Your task to perform on an android device: Open sound settings Image 0: 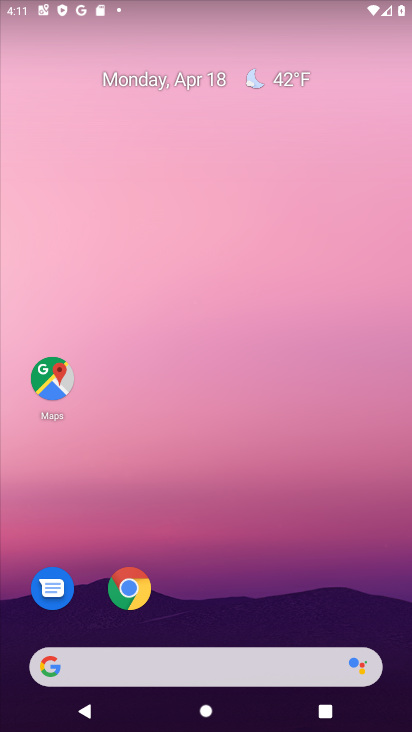
Step 0: drag from (242, 526) to (292, 73)
Your task to perform on an android device: Open sound settings Image 1: 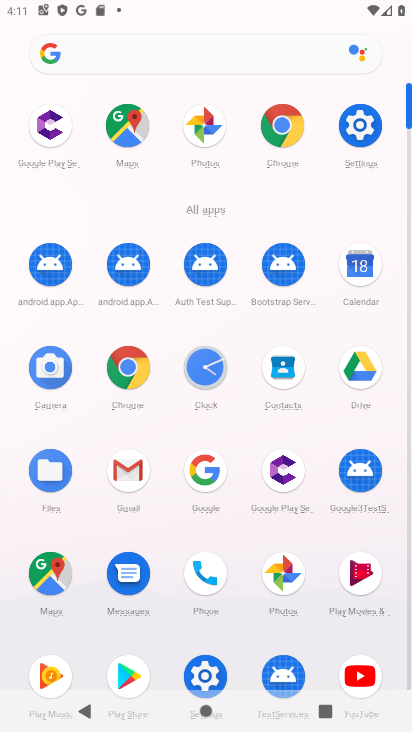
Step 1: click (353, 139)
Your task to perform on an android device: Open sound settings Image 2: 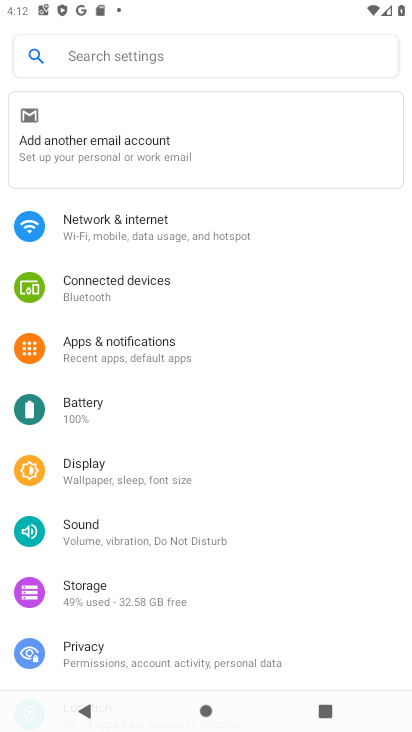
Step 2: click (107, 540)
Your task to perform on an android device: Open sound settings Image 3: 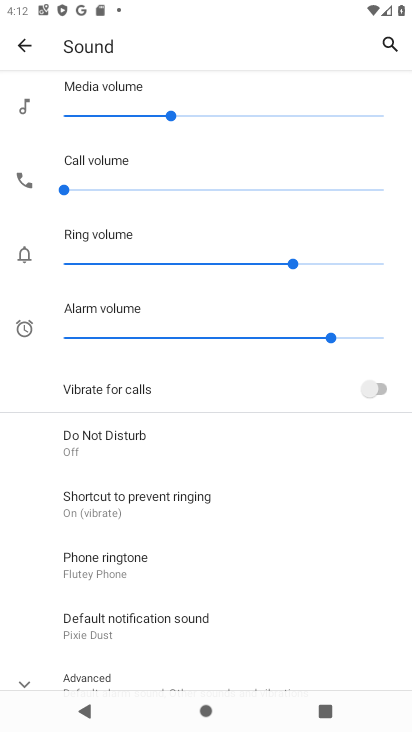
Step 3: task complete